Your task to perform on an android device: Open the stopwatch Image 0: 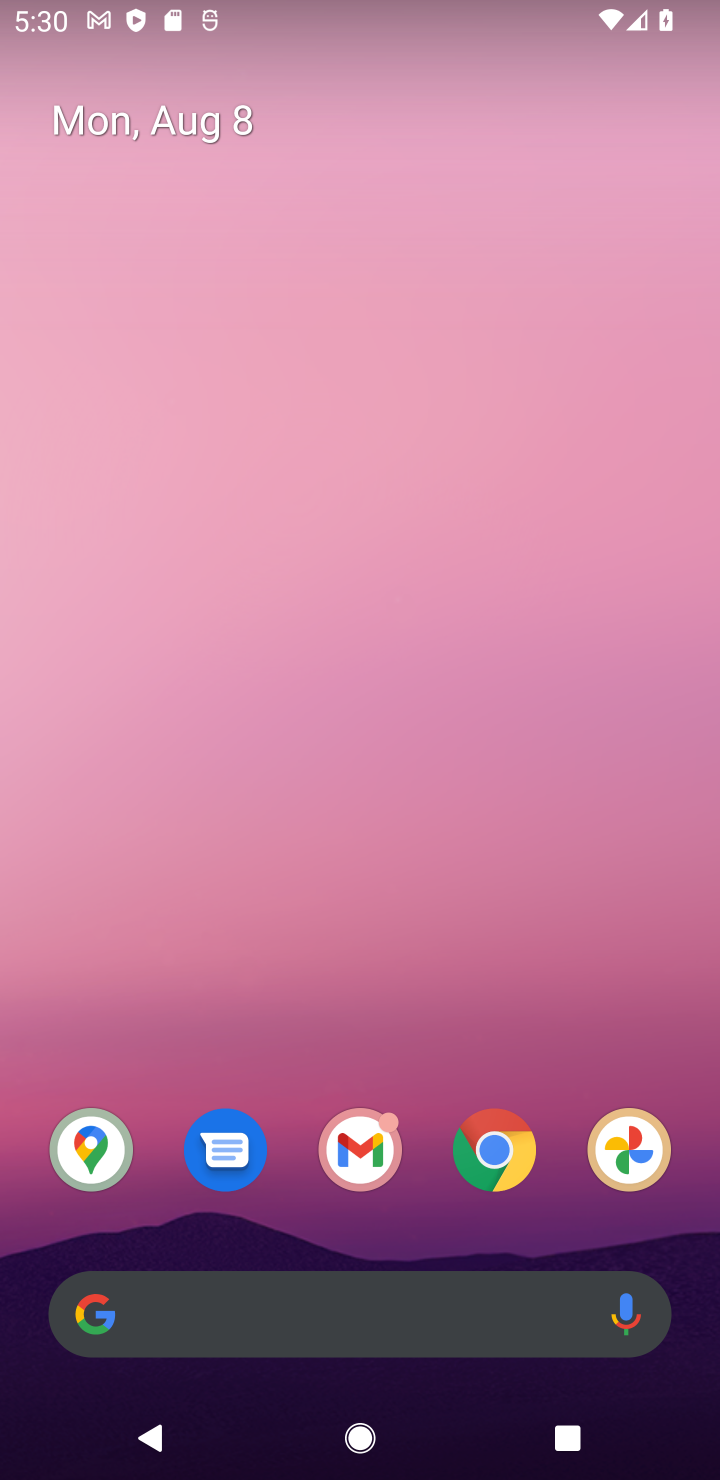
Step 0: drag from (270, 1233) to (199, 203)
Your task to perform on an android device: Open the stopwatch Image 1: 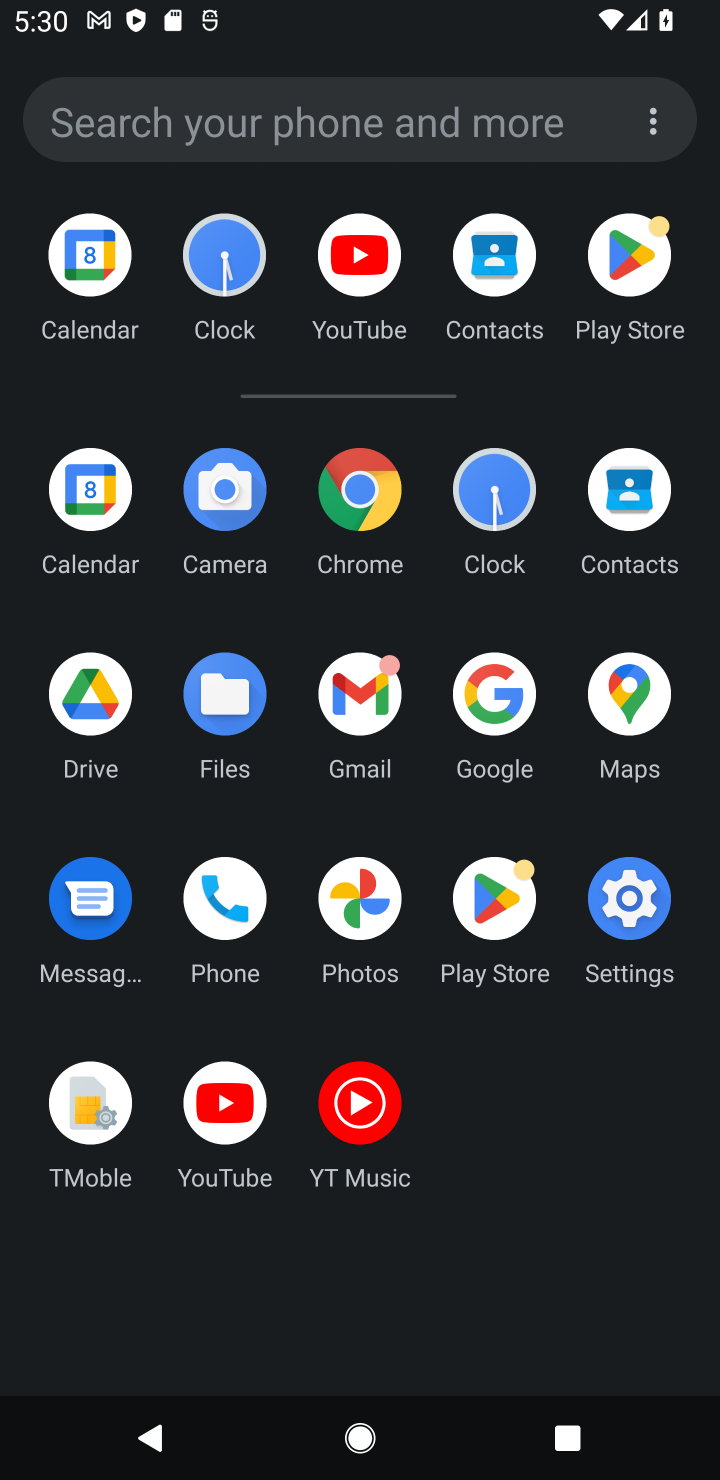
Step 1: click (487, 553)
Your task to perform on an android device: Open the stopwatch Image 2: 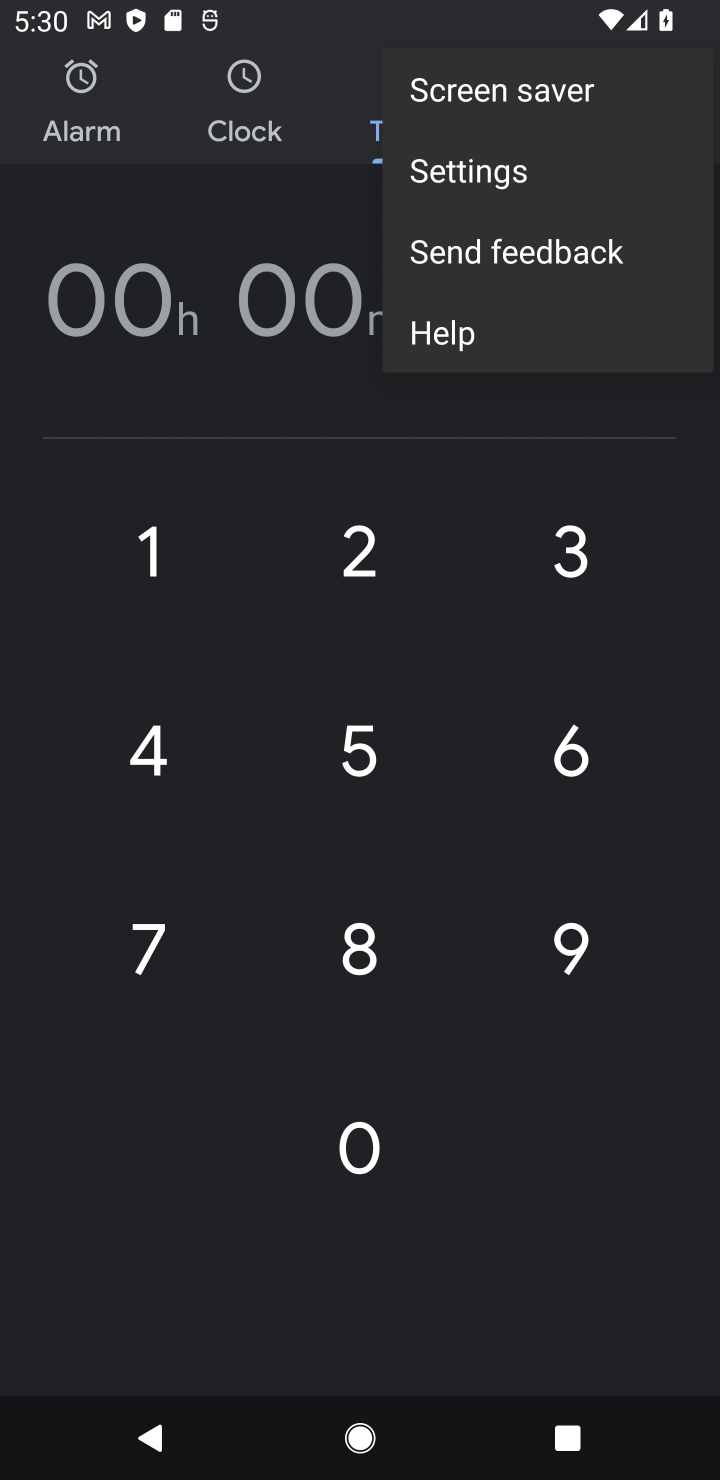
Step 2: task complete